Your task to perform on an android device: Open the web browser Image 0: 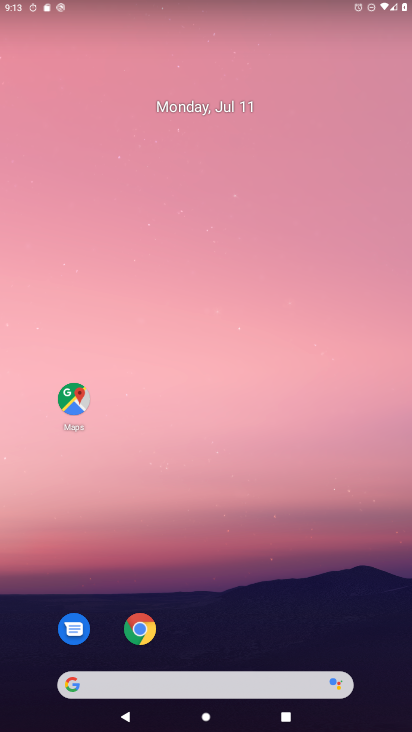
Step 0: drag from (222, 638) to (207, 144)
Your task to perform on an android device: Open the web browser Image 1: 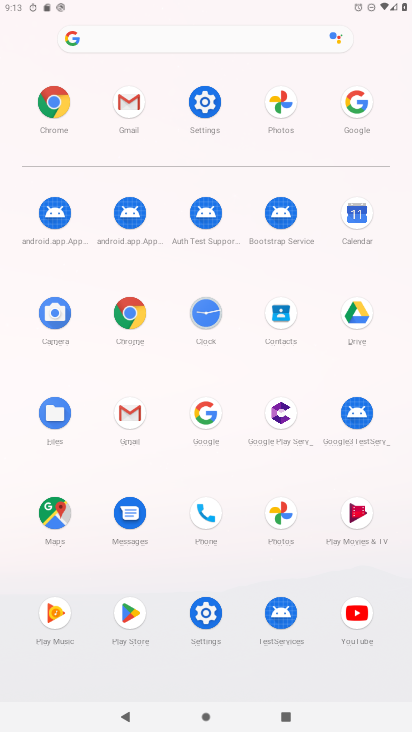
Step 1: click (208, 414)
Your task to perform on an android device: Open the web browser Image 2: 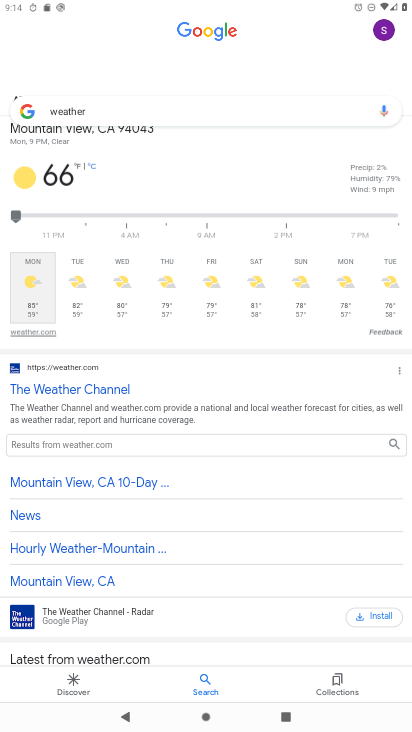
Step 2: task complete